Your task to perform on an android device: Open sound settings Image 0: 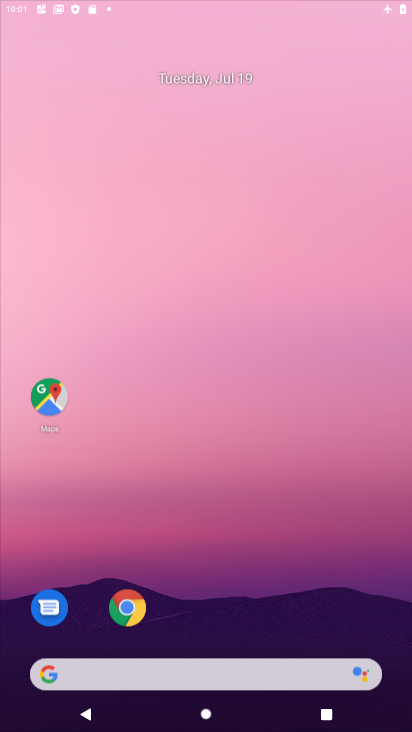
Step 0: click (250, 34)
Your task to perform on an android device: Open sound settings Image 1: 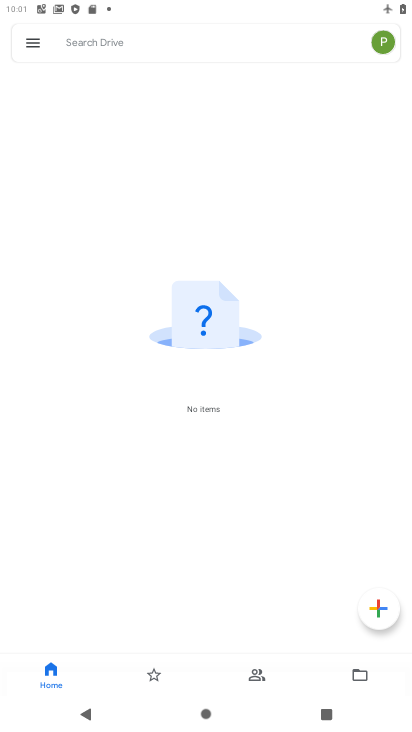
Step 1: press home button
Your task to perform on an android device: Open sound settings Image 2: 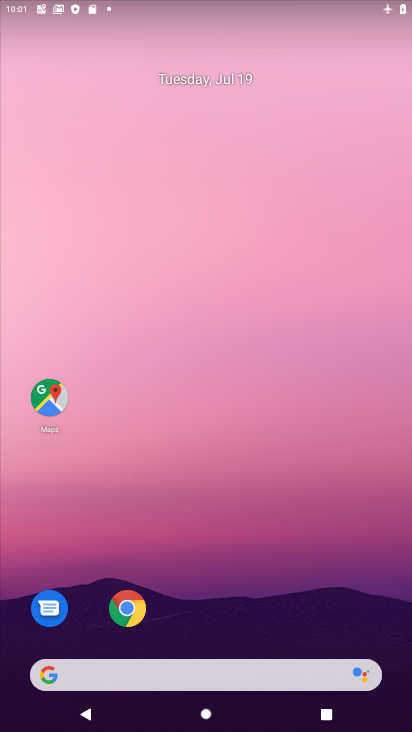
Step 2: drag from (298, 534) to (290, 104)
Your task to perform on an android device: Open sound settings Image 3: 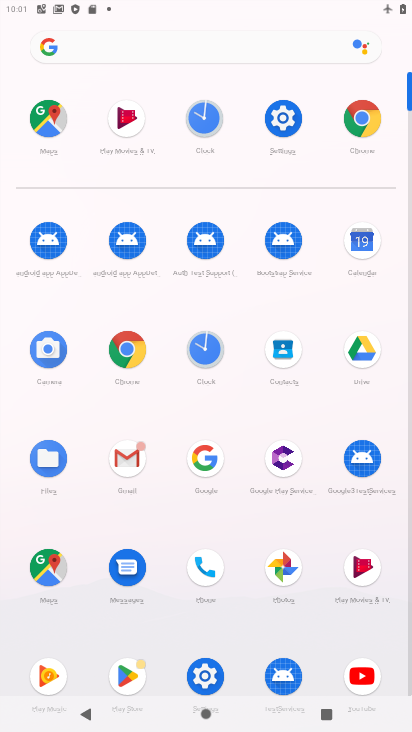
Step 3: click (304, 121)
Your task to perform on an android device: Open sound settings Image 4: 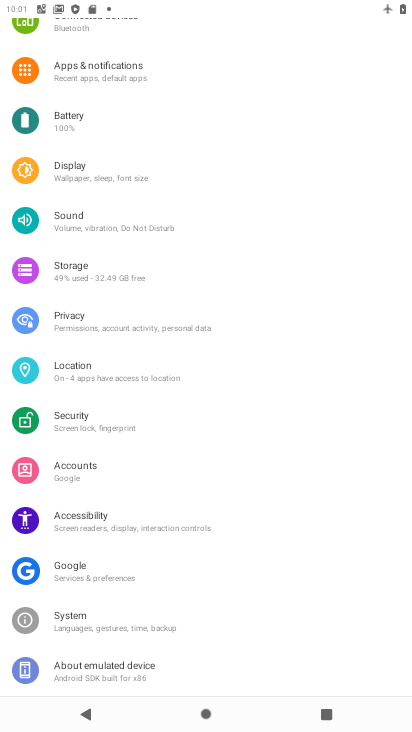
Step 4: drag from (163, 554) to (146, 274)
Your task to perform on an android device: Open sound settings Image 5: 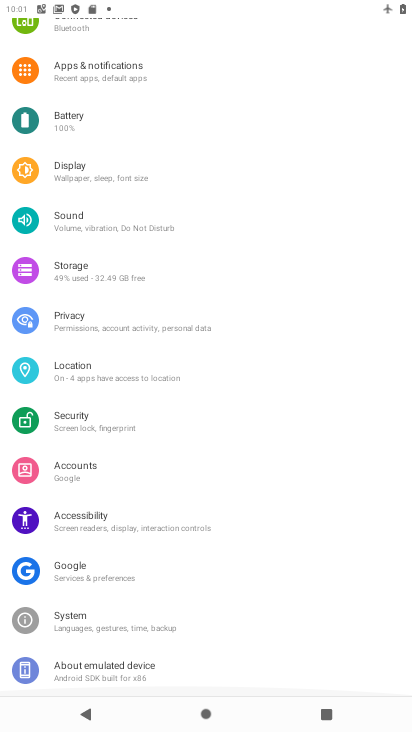
Step 5: click (135, 239)
Your task to perform on an android device: Open sound settings Image 6: 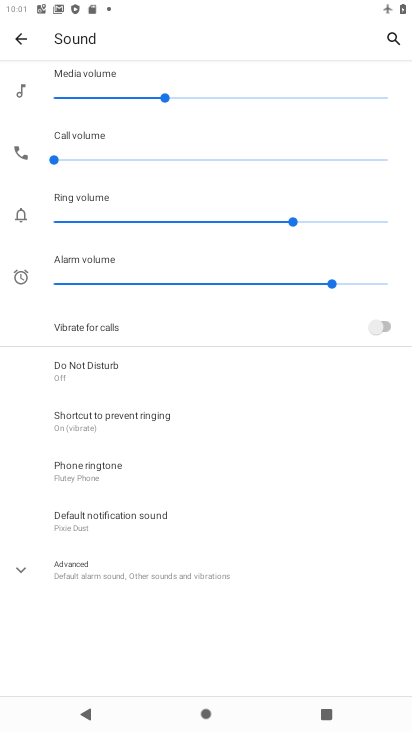
Step 6: task complete